Your task to perform on an android device: Go to settings Image 0: 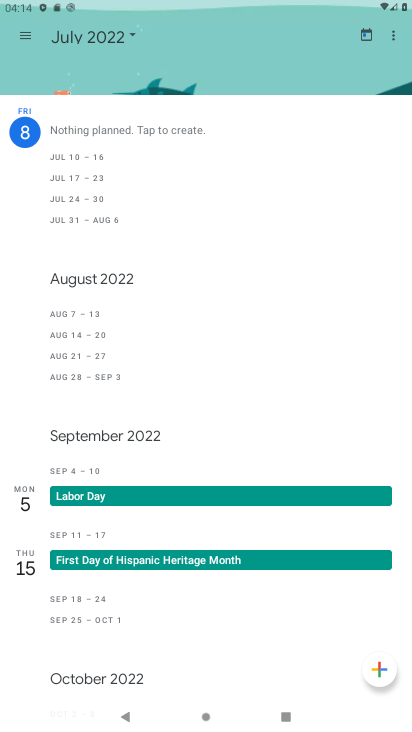
Step 0: press home button
Your task to perform on an android device: Go to settings Image 1: 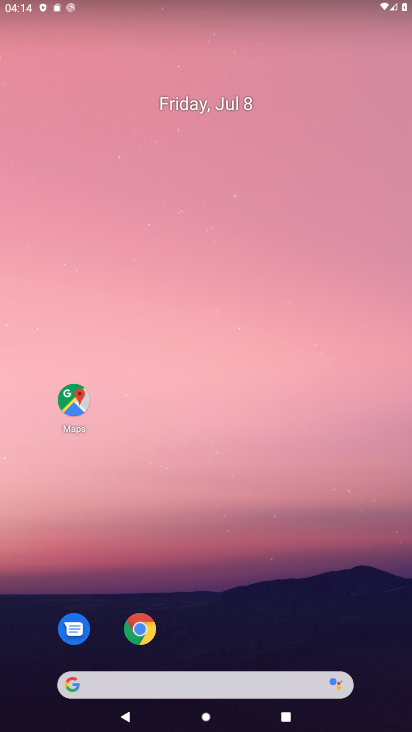
Step 1: drag from (249, 713) to (238, 76)
Your task to perform on an android device: Go to settings Image 2: 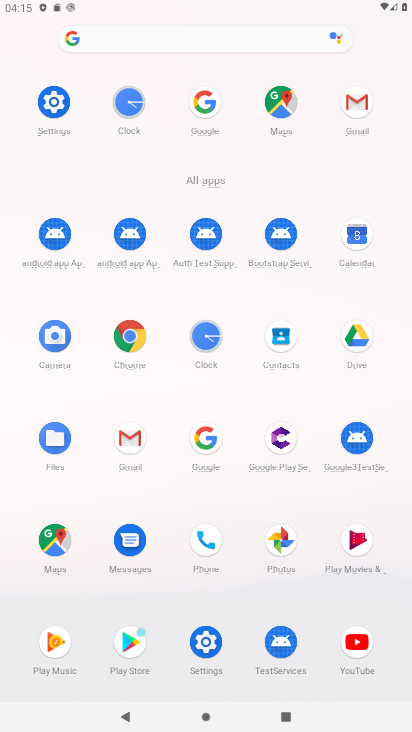
Step 2: click (49, 96)
Your task to perform on an android device: Go to settings Image 3: 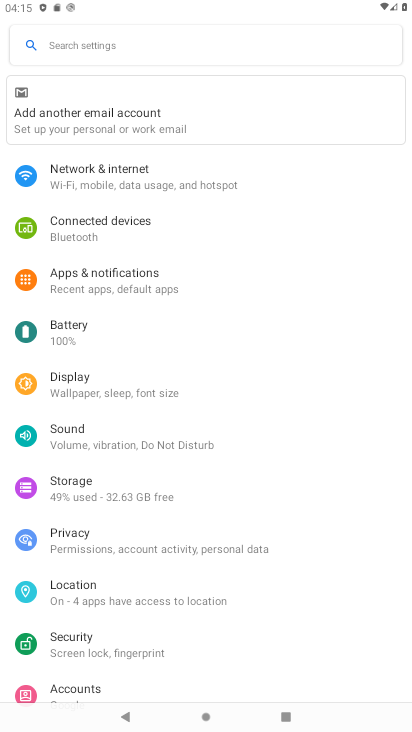
Step 3: task complete